Your task to perform on an android device: empty trash in the gmail app Image 0: 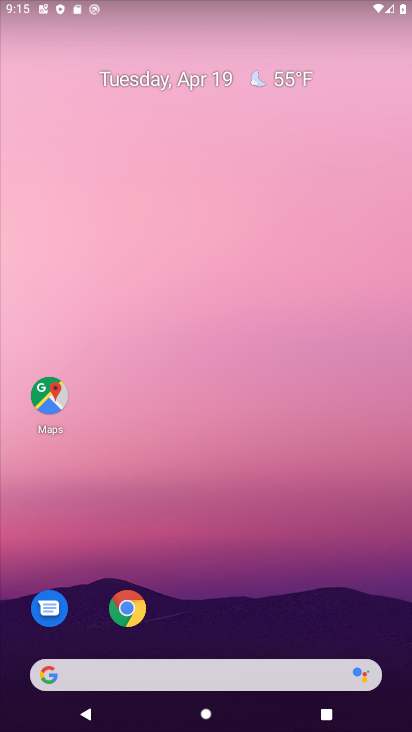
Step 0: drag from (176, 636) to (289, 61)
Your task to perform on an android device: empty trash in the gmail app Image 1: 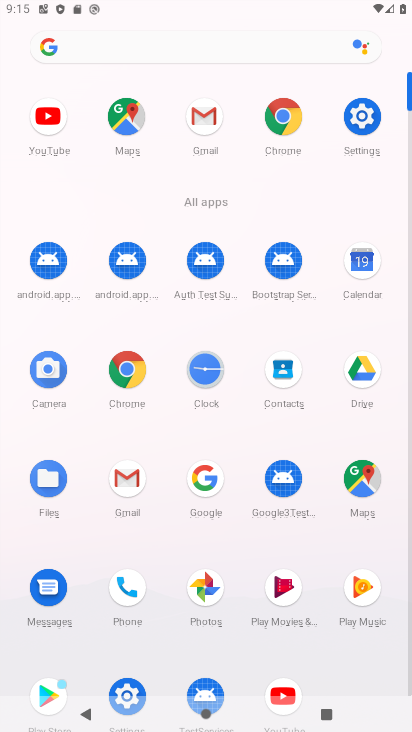
Step 1: click (119, 480)
Your task to perform on an android device: empty trash in the gmail app Image 2: 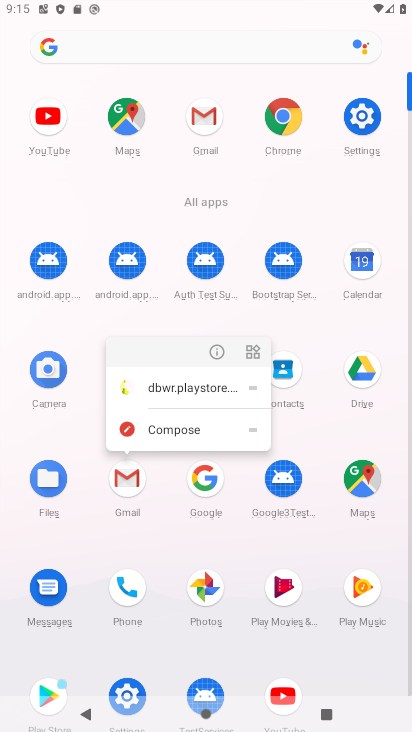
Step 2: click (129, 479)
Your task to perform on an android device: empty trash in the gmail app Image 3: 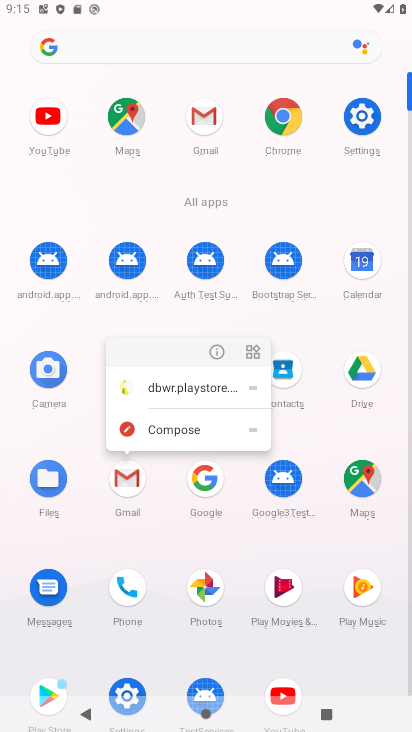
Step 3: click (134, 481)
Your task to perform on an android device: empty trash in the gmail app Image 4: 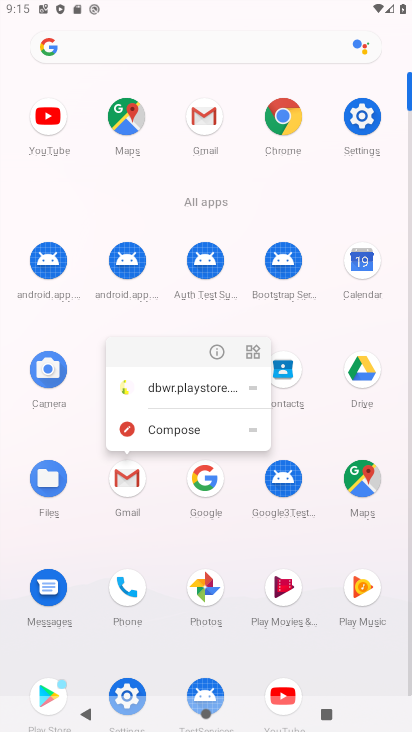
Step 4: click (130, 496)
Your task to perform on an android device: empty trash in the gmail app Image 5: 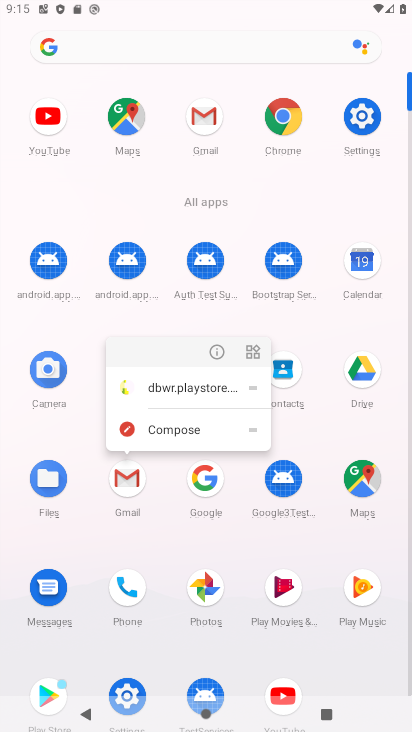
Step 5: click (128, 494)
Your task to perform on an android device: empty trash in the gmail app Image 6: 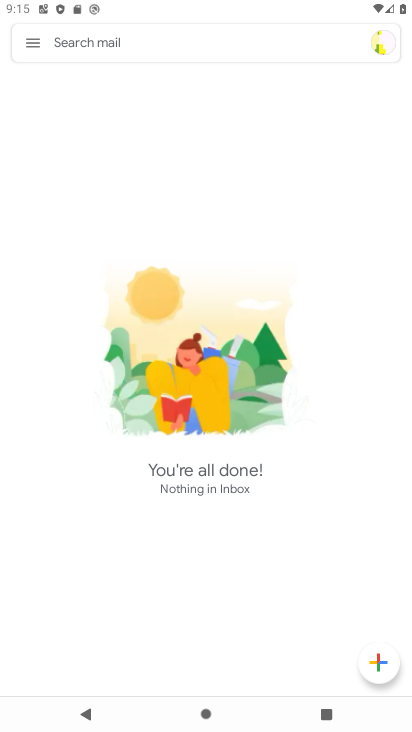
Step 6: click (41, 39)
Your task to perform on an android device: empty trash in the gmail app Image 7: 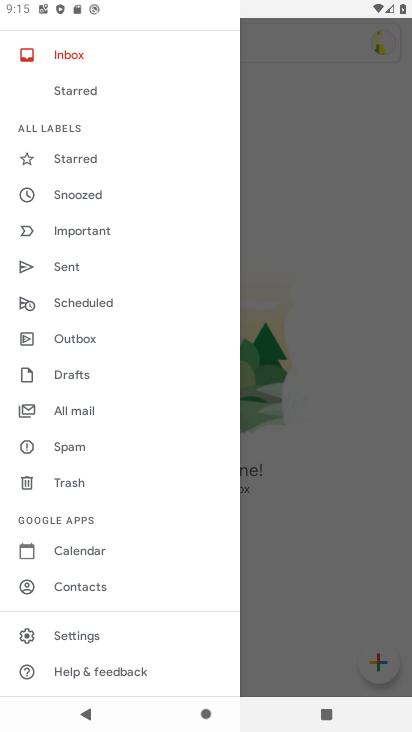
Step 7: click (103, 491)
Your task to perform on an android device: empty trash in the gmail app Image 8: 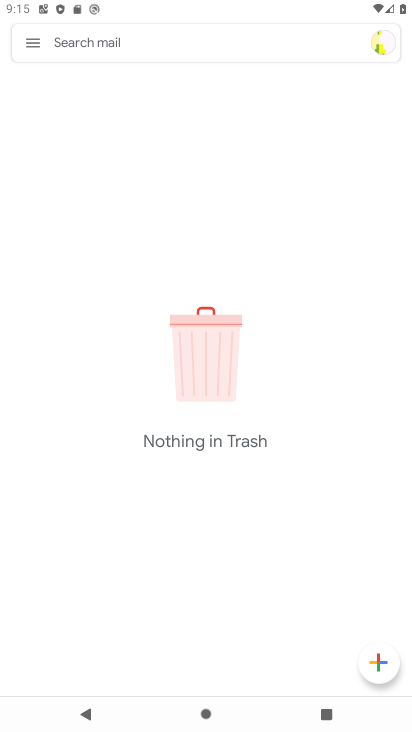
Step 8: task complete